Your task to perform on an android device: Open battery settings Image 0: 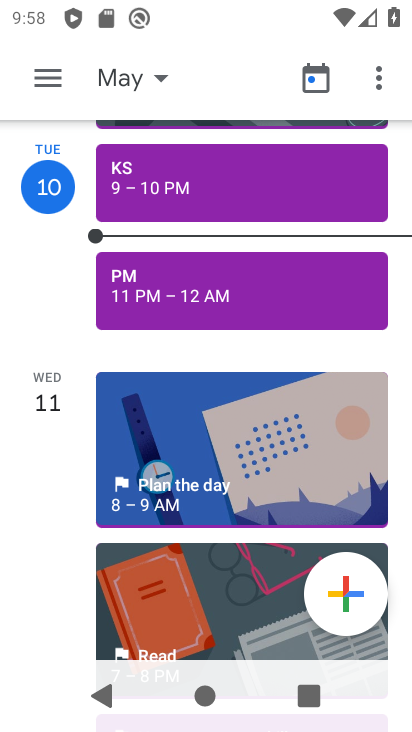
Step 0: press home button
Your task to perform on an android device: Open battery settings Image 1: 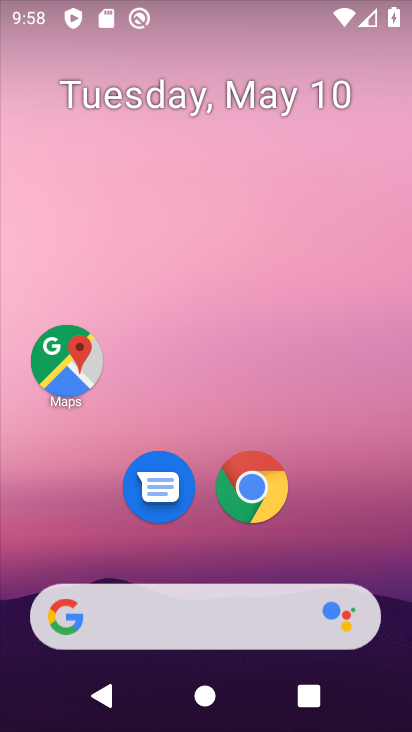
Step 1: drag from (313, 523) to (362, 141)
Your task to perform on an android device: Open battery settings Image 2: 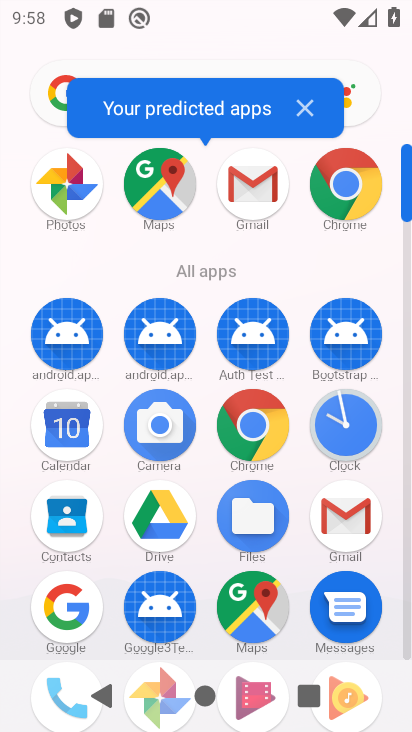
Step 2: click (406, 651)
Your task to perform on an android device: Open battery settings Image 3: 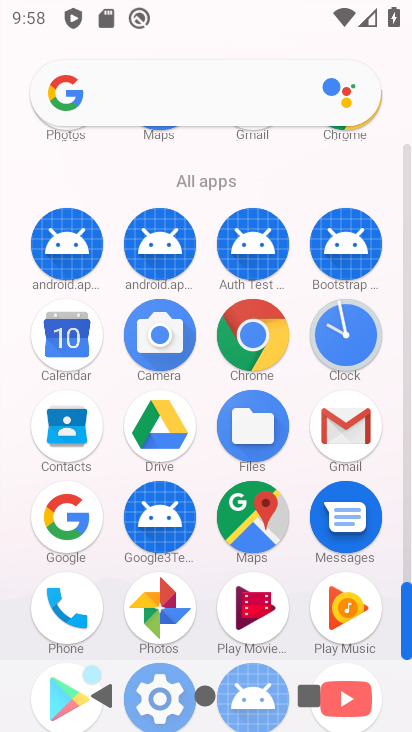
Step 3: click (157, 677)
Your task to perform on an android device: Open battery settings Image 4: 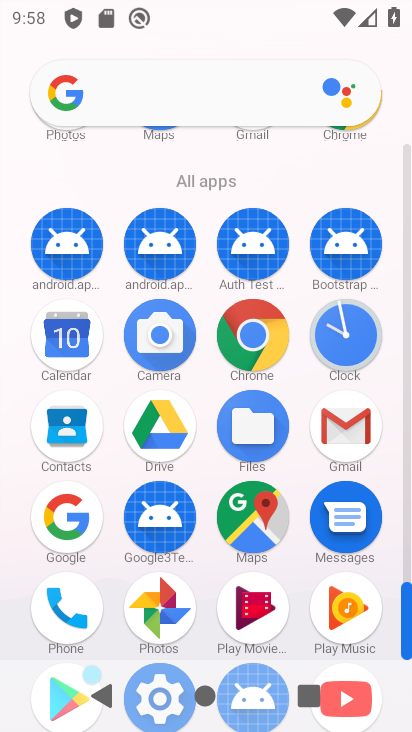
Step 4: drag from (408, 618) to (406, 713)
Your task to perform on an android device: Open battery settings Image 5: 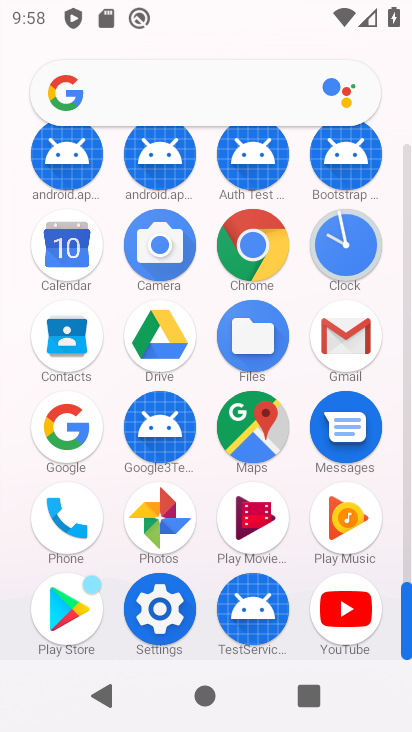
Step 5: click (167, 607)
Your task to perform on an android device: Open battery settings Image 6: 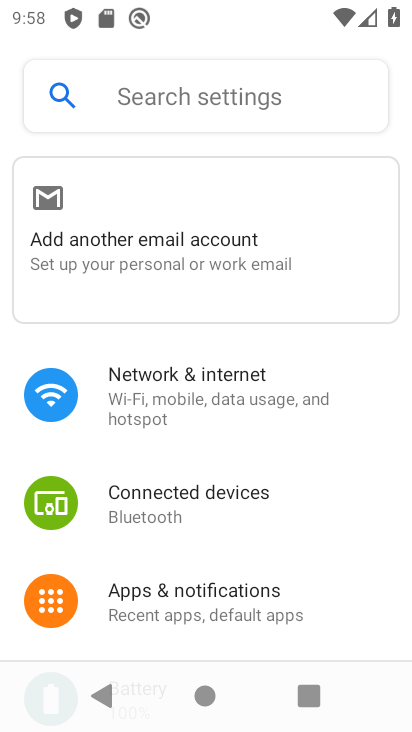
Step 6: drag from (177, 576) to (217, 176)
Your task to perform on an android device: Open battery settings Image 7: 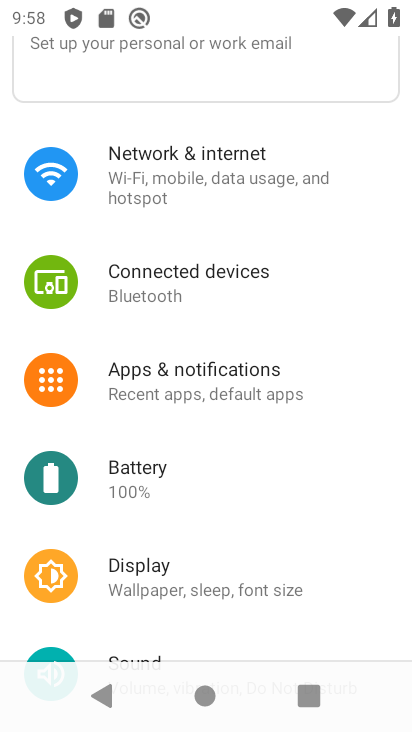
Step 7: click (160, 462)
Your task to perform on an android device: Open battery settings Image 8: 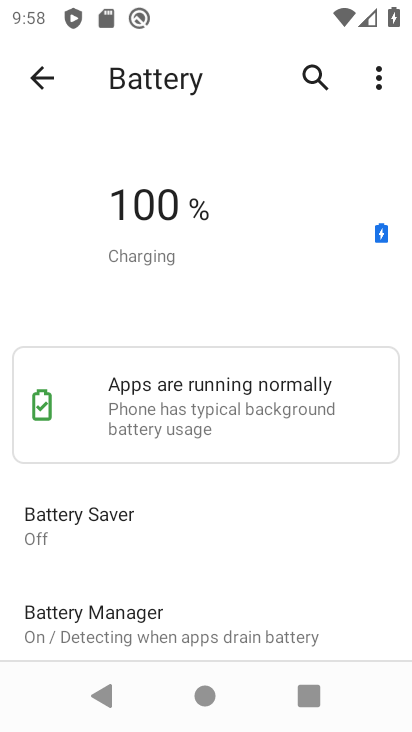
Step 8: task complete